Your task to perform on an android device: toggle location history Image 0: 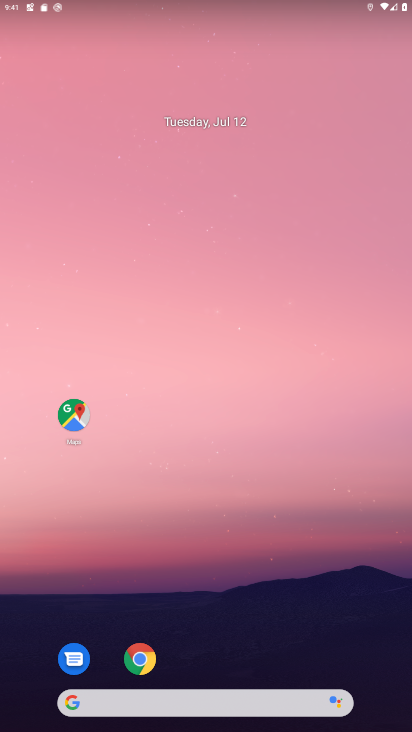
Step 0: drag from (286, 667) to (245, 345)
Your task to perform on an android device: toggle location history Image 1: 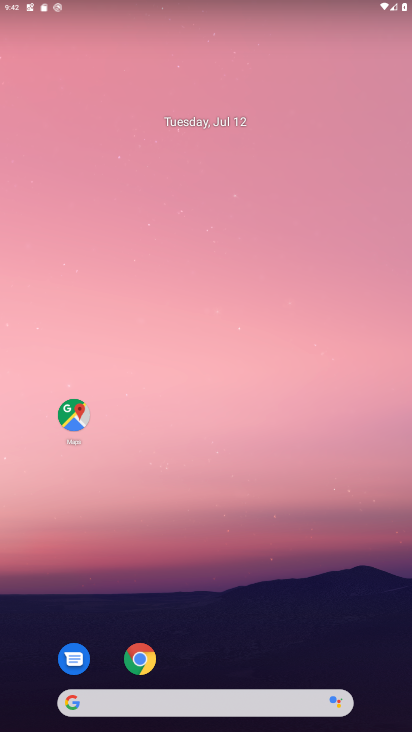
Step 1: drag from (352, 716) to (268, 295)
Your task to perform on an android device: toggle location history Image 2: 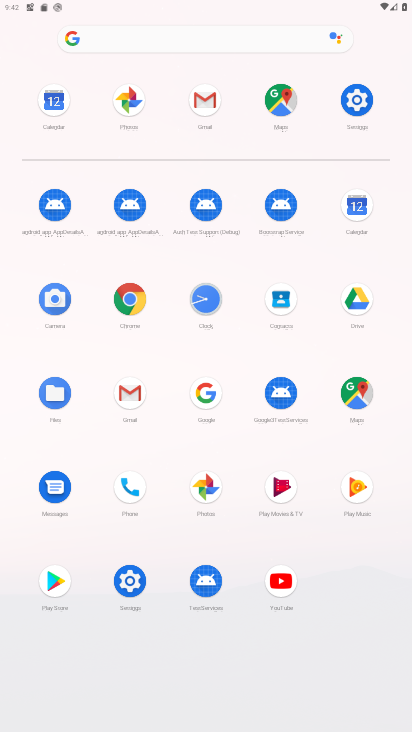
Step 2: click (281, 105)
Your task to perform on an android device: toggle location history Image 3: 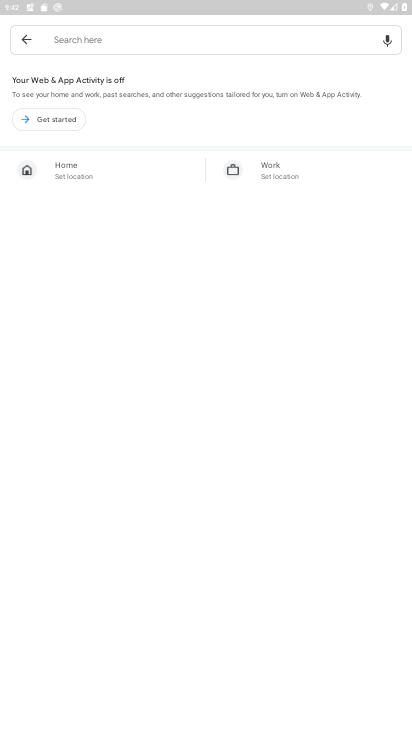
Step 3: click (23, 33)
Your task to perform on an android device: toggle location history Image 4: 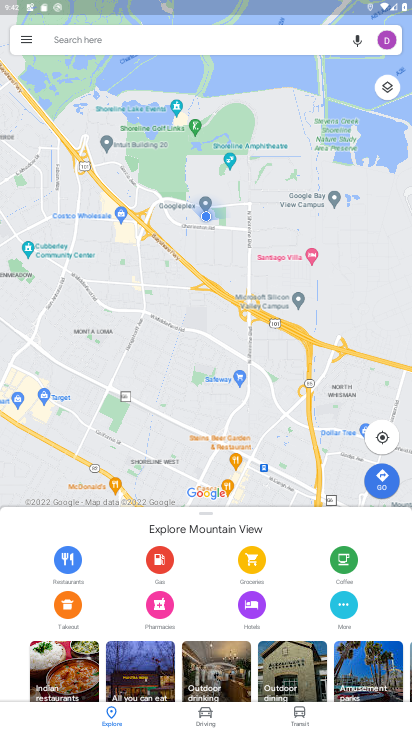
Step 4: click (23, 33)
Your task to perform on an android device: toggle location history Image 5: 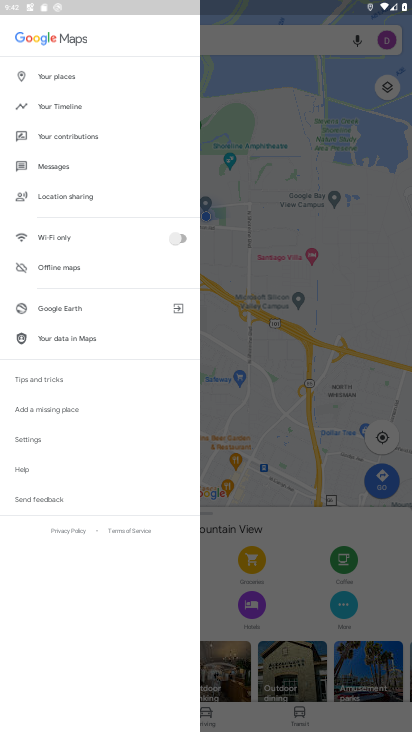
Step 5: click (44, 73)
Your task to perform on an android device: toggle location history Image 6: 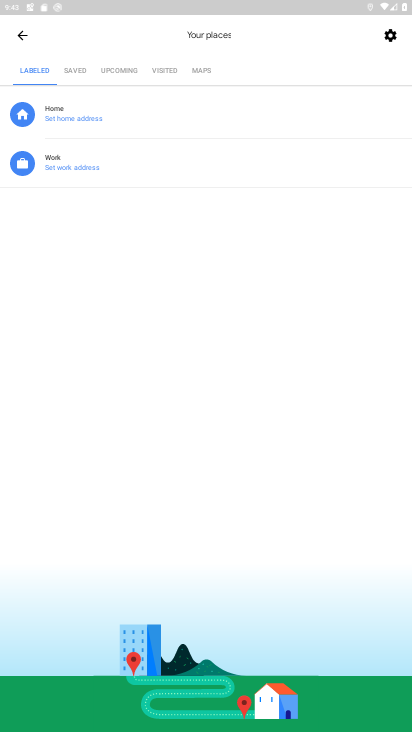
Step 6: click (17, 33)
Your task to perform on an android device: toggle location history Image 7: 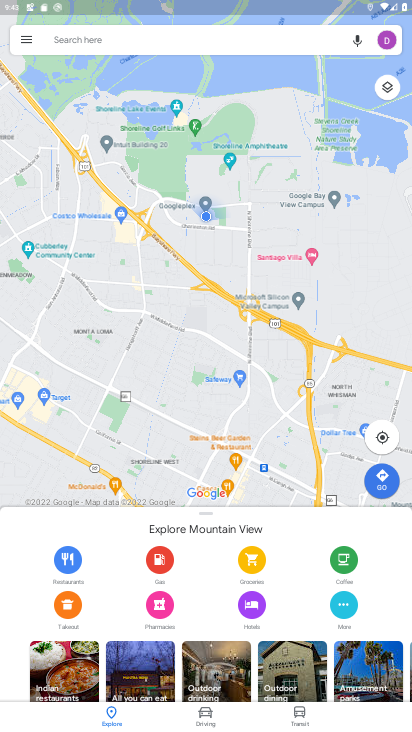
Step 7: click (17, 39)
Your task to perform on an android device: toggle location history Image 8: 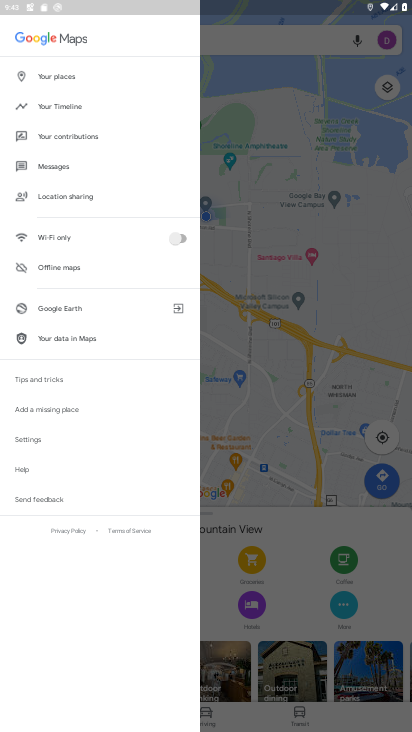
Step 8: click (47, 107)
Your task to perform on an android device: toggle location history Image 9: 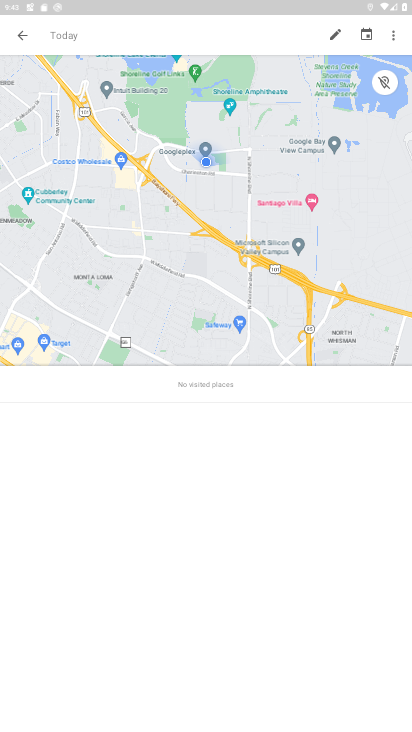
Step 9: click (397, 37)
Your task to perform on an android device: toggle location history Image 10: 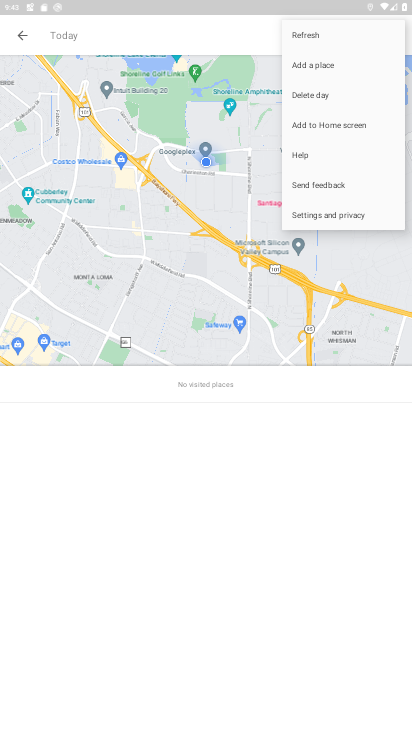
Step 10: click (302, 218)
Your task to perform on an android device: toggle location history Image 11: 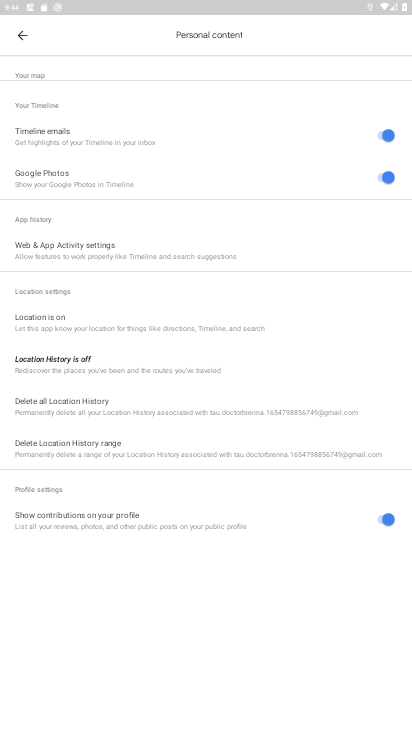
Step 11: click (100, 356)
Your task to perform on an android device: toggle location history Image 12: 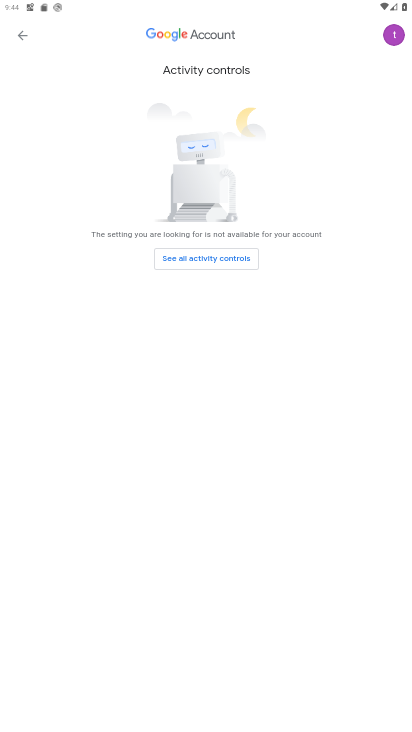
Step 12: click (19, 35)
Your task to perform on an android device: toggle location history Image 13: 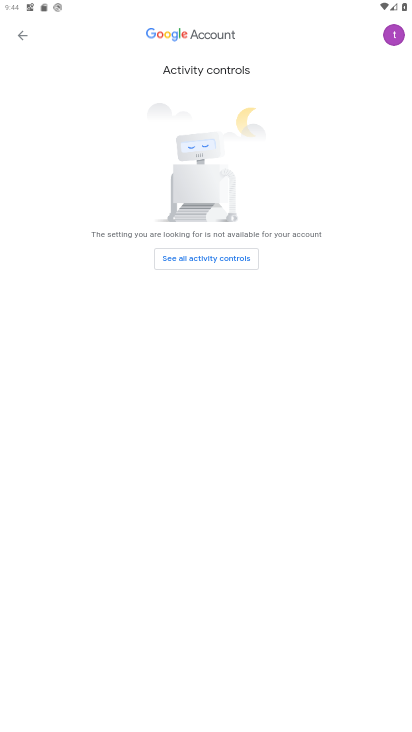
Step 13: click (22, 28)
Your task to perform on an android device: toggle location history Image 14: 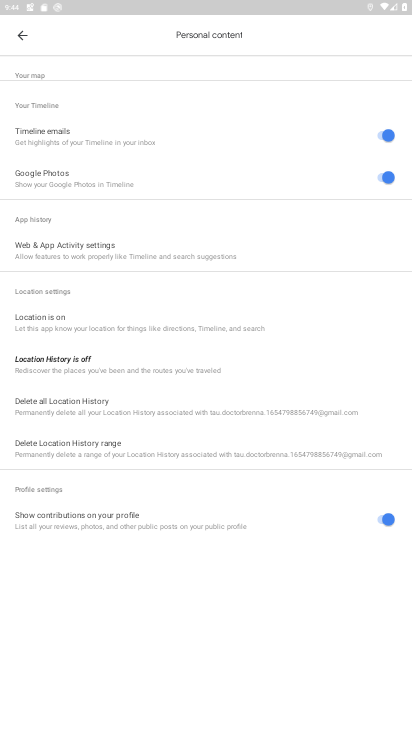
Step 14: click (77, 359)
Your task to perform on an android device: toggle location history Image 15: 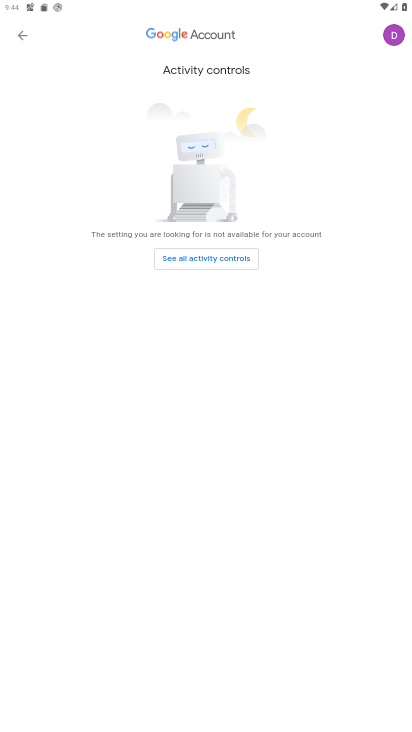
Step 15: click (198, 259)
Your task to perform on an android device: toggle location history Image 16: 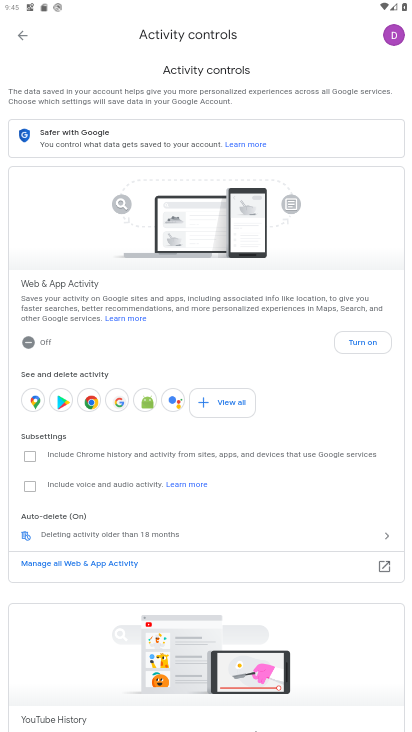
Step 16: click (369, 346)
Your task to perform on an android device: toggle location history Image 17: 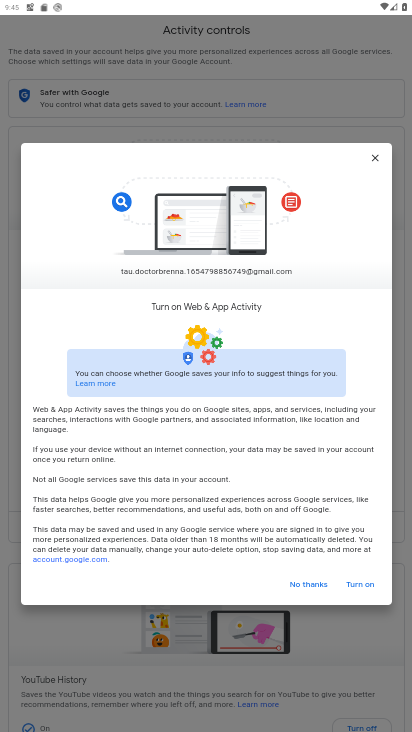
Step 17: click (357, 581)
Your task to perform on an android device: toggle location history Image 18: 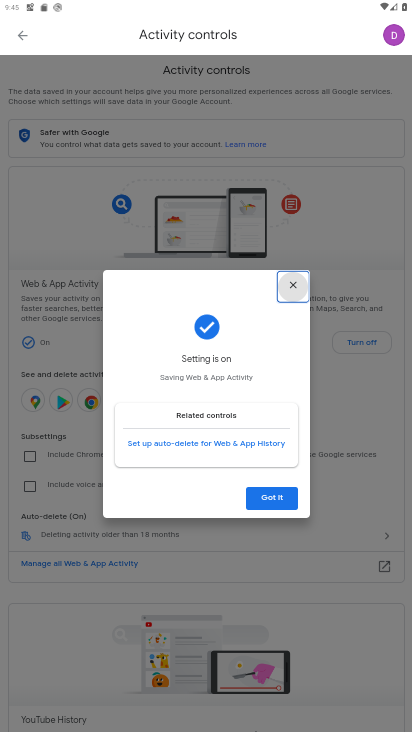
Step 18: click (266, 503)
Your task to perform on an android device: toggle location history Image 19: 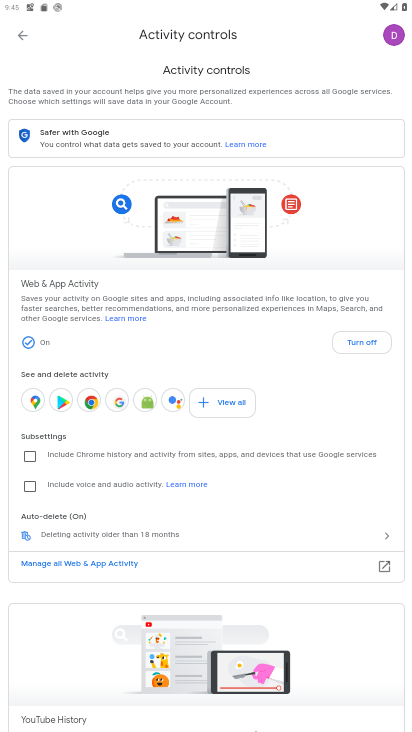
Step 19: task complete